Your task to perform on an android device: change text size in settings app Image 0: 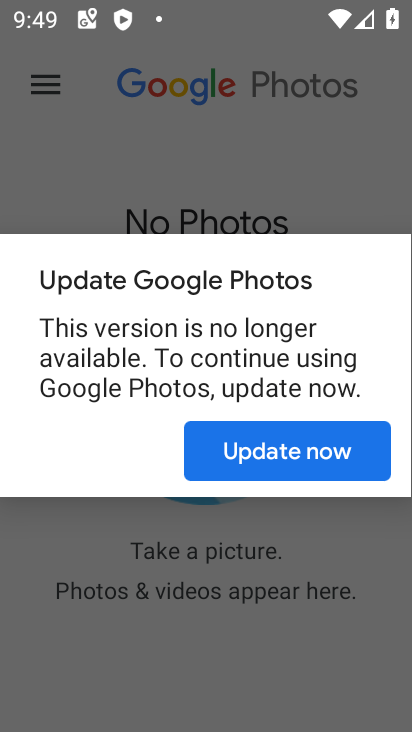
Step 0: press home button
Your task to perform on an android device: change text size in settings app Image 1: 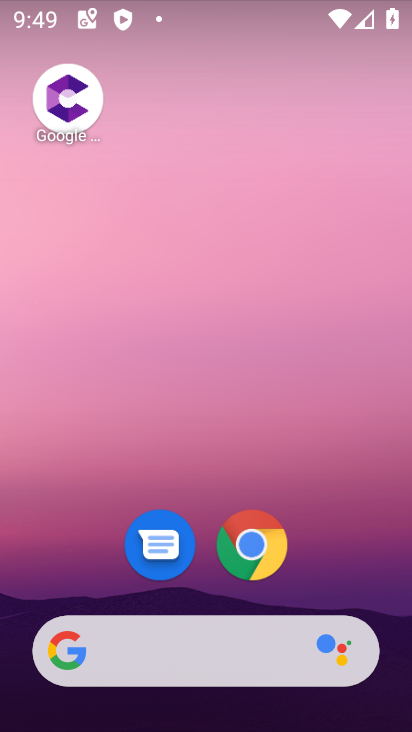
Step 1: drag from (373, 614) to (386, 15)
Your task to perform on an android device: change text size in settings app Image 2: 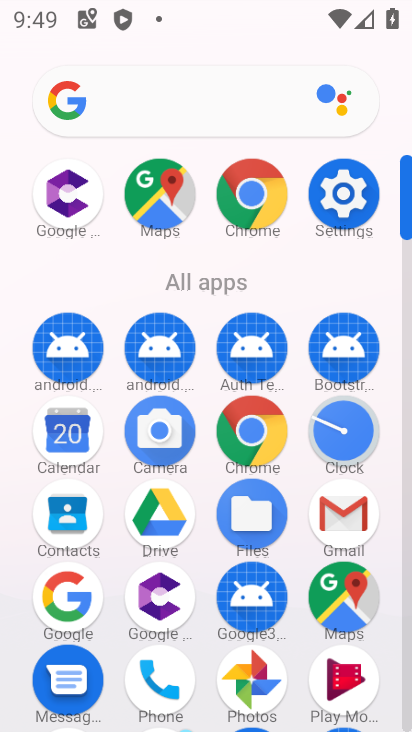
Step 2: click (344, 197)
Your task to perform on an android device: change text size in settings app Image 3: 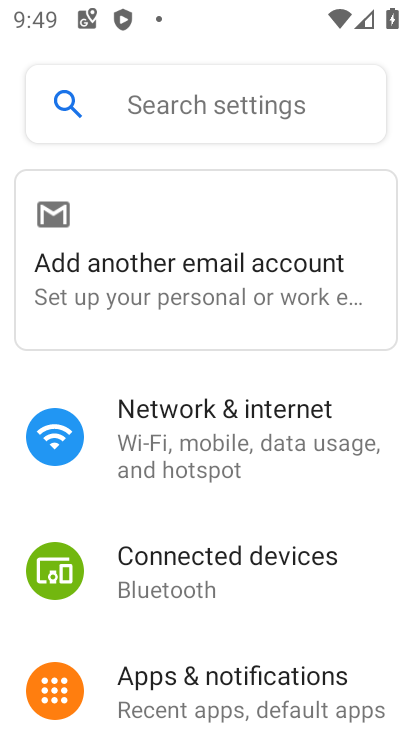
Step 3: drag from (363, 600) to (326, 142)
Your task to perform on an android device: change text size in settings app Image 4: 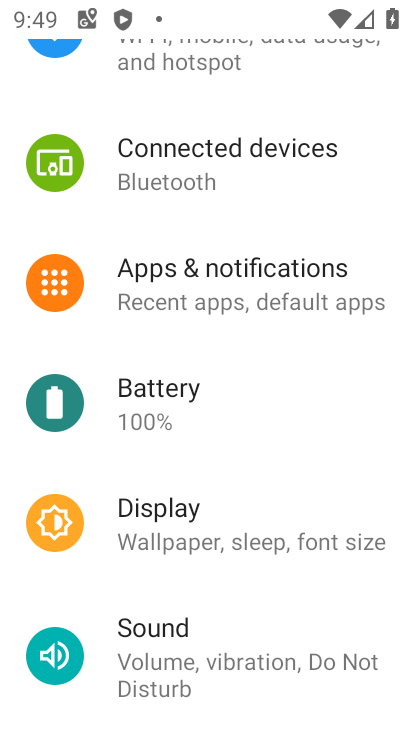
Step 4: click (141, 533)
Your task to perform on an android device: change text size in settings app Image 5: 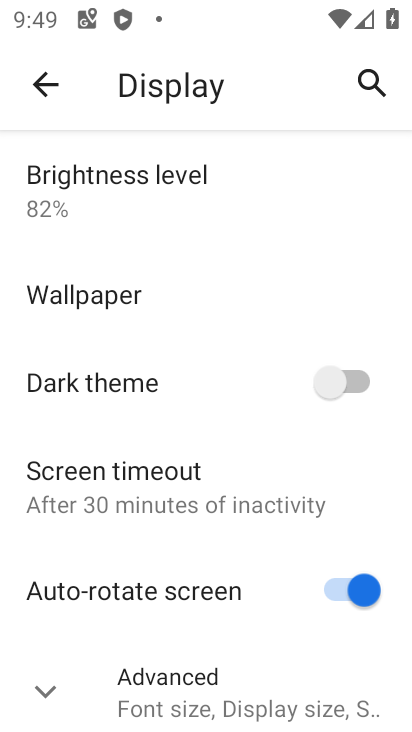
Step 5: click (37, 697)
Your task to perform on an android device: change text size in settings app Image 6: 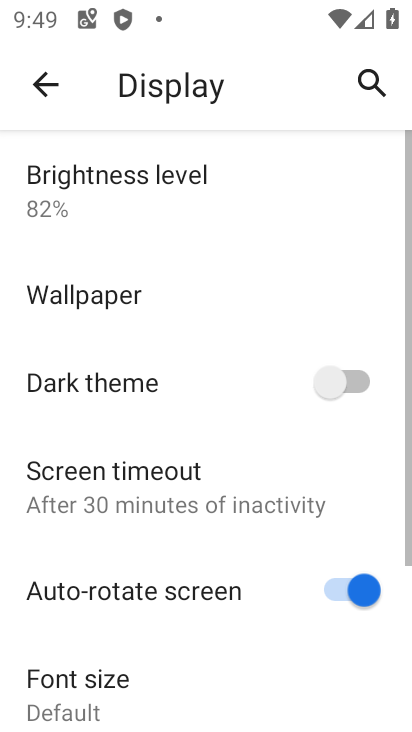
Step 6: drag from (145, 660) to (158, 117)
Your task to perform on an android device: change text size in settings app Image 7: 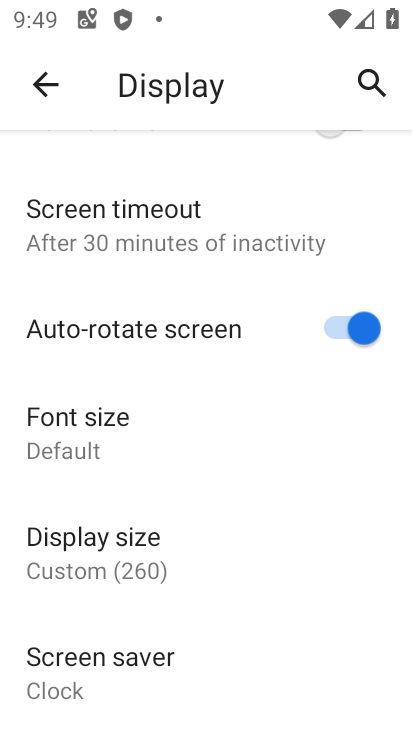
Step 7: click (67, 436)
Your task to perform on an android device: change text size in settings app Image 8: 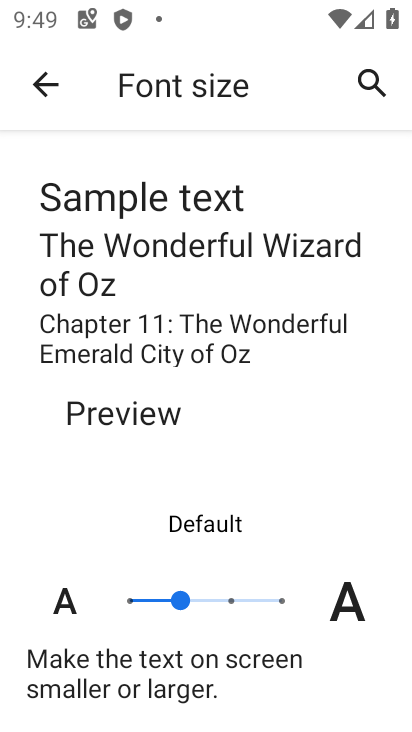
Step 8: click (127, 600)
Your task to perform on an android device: change text size in settings app Image 9: 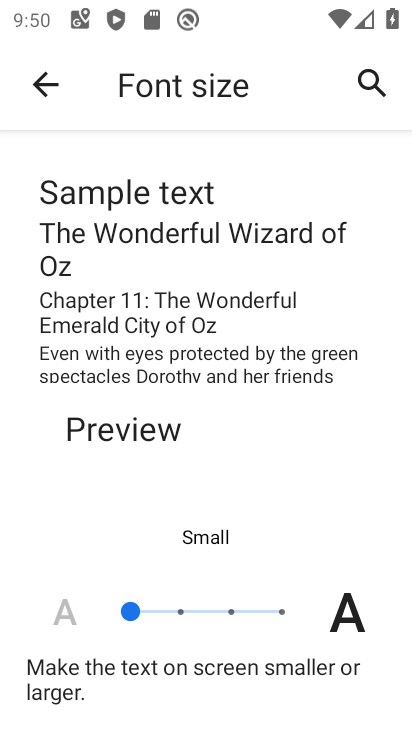
Step 9: task complete